Your task to perform on an android device: search for starred emails in the gmail app Image 0: 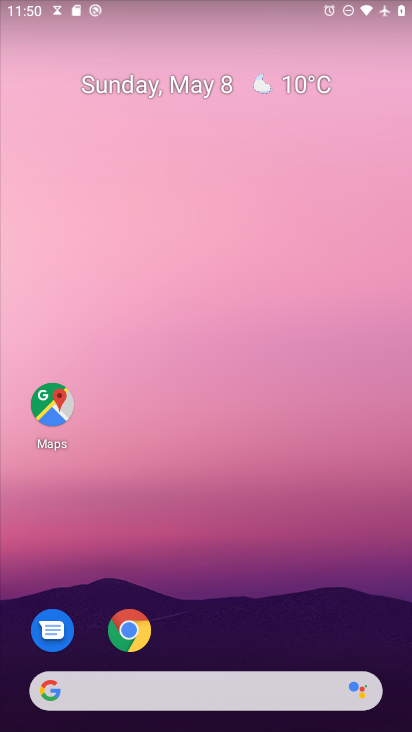
Step 0: drag from (170, 687) to (323, 226)
Your task to perform on an android device: search for starred emails in the gmail app Image 1: 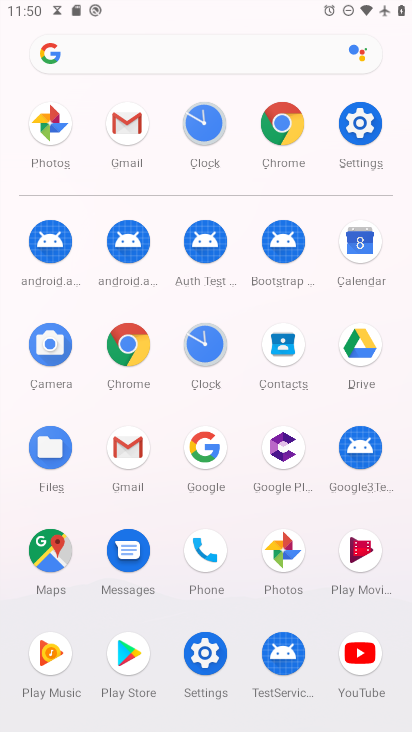
Step 1: click (133, 129)
Your task to perform on an android device: search for starred emails in the gmail app Image 2: 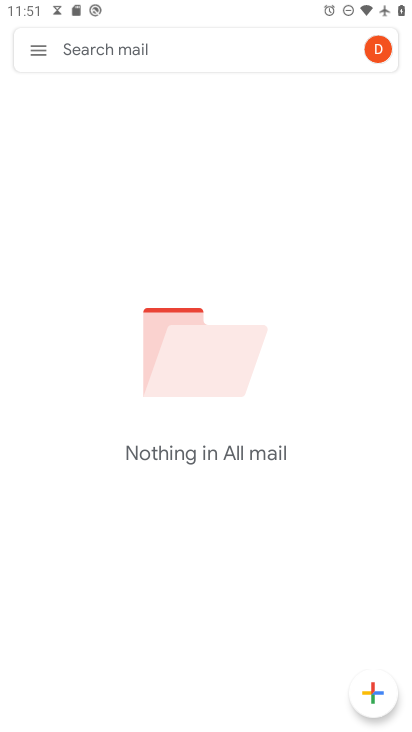
Step 2: click (38, 46)
Your task to perform on an android device: search for starred emails in the gmail app Image 3: 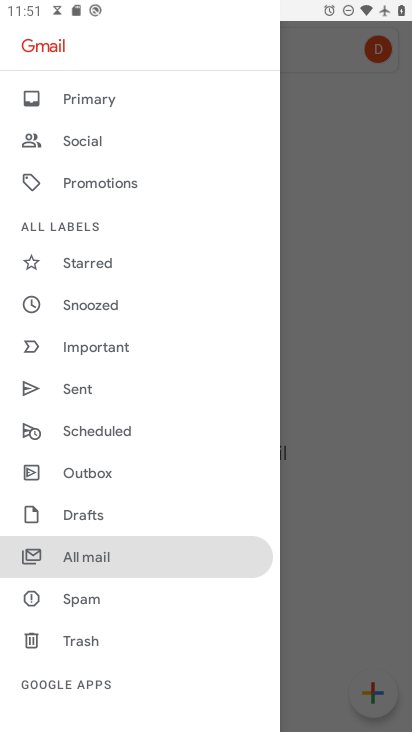
Step 3: click (103, 269)
Your task to perform on an android device: search for starred emails in the gmail app Image 4: 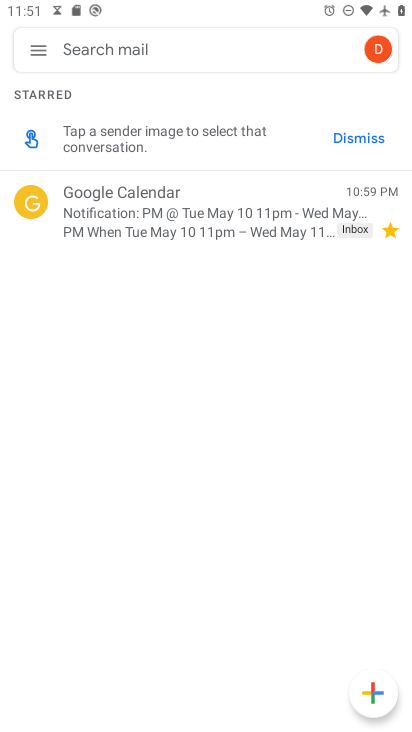
Step 4: task complete